Your task to perform on an android device: Open settings on Google Maps Image 0: 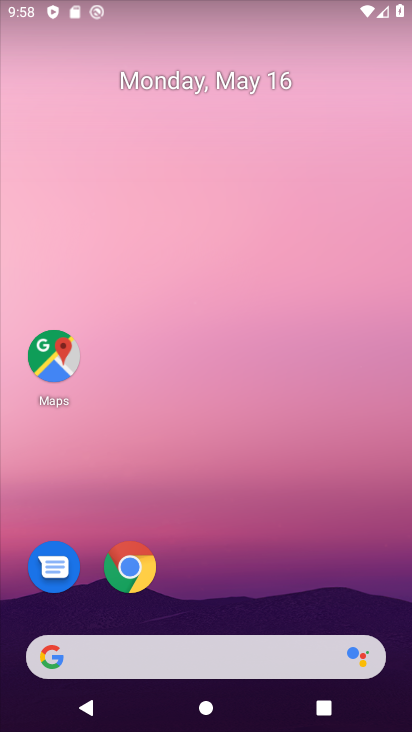
Step 0: click (51, 344)
Your task to perform on an android device: Open settings on Google Maps Image 1: 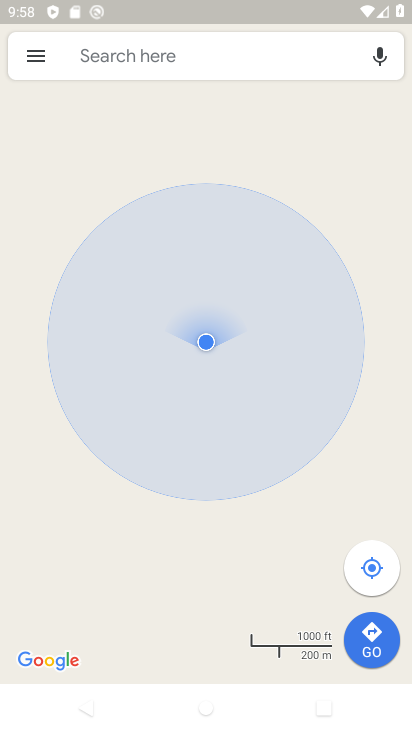
Step 1: click (41, 56)
Your task to perform on an android device: Open settings on Google Maps Image 2: 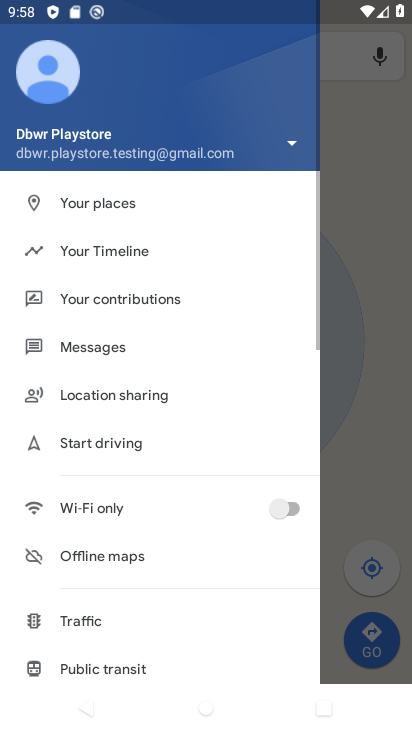
Step 2: drag from (123, 668) to (121, 330)
Your task to perform on an android device: Open settings on Google Maps Image 3: 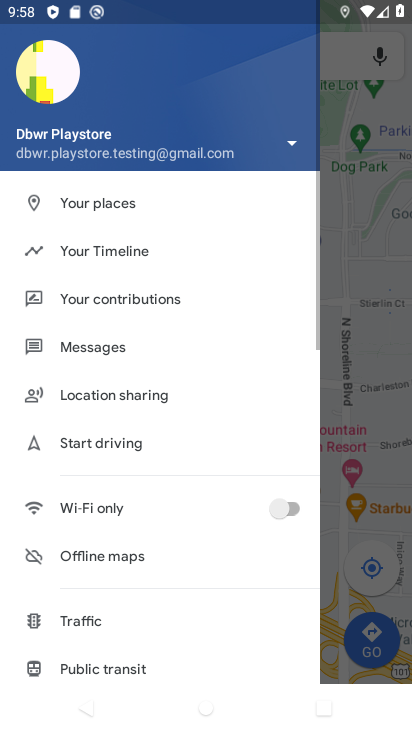
Step 3: drag from (98, 682) to (124, 310)
Your task to perform on an android device: Open settings on Google Maps Image 4: 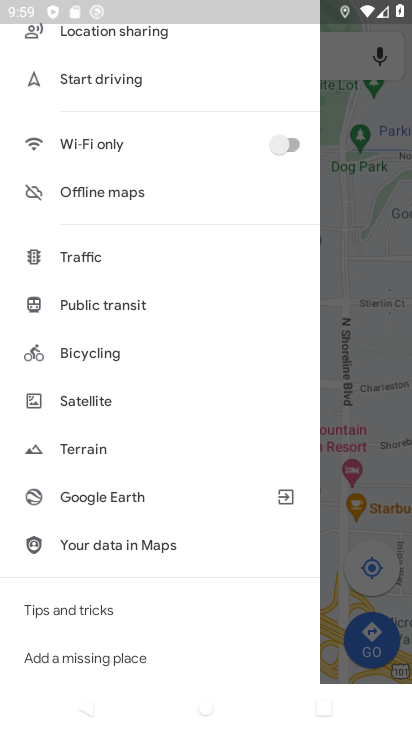
Step 4: drag from (118, 645) to (141, 229)
Your task to perform on an android device: Open settings on Google Maps Image 5: 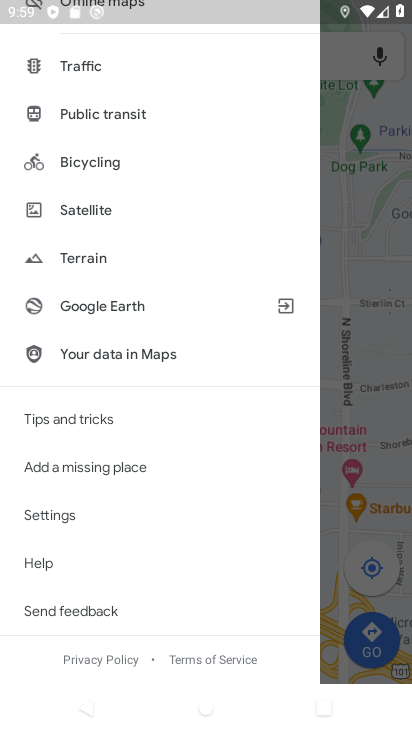
Step 5: click (63, 515)
Your task to perform on an android device: Open settings on Google Maps Image 6: 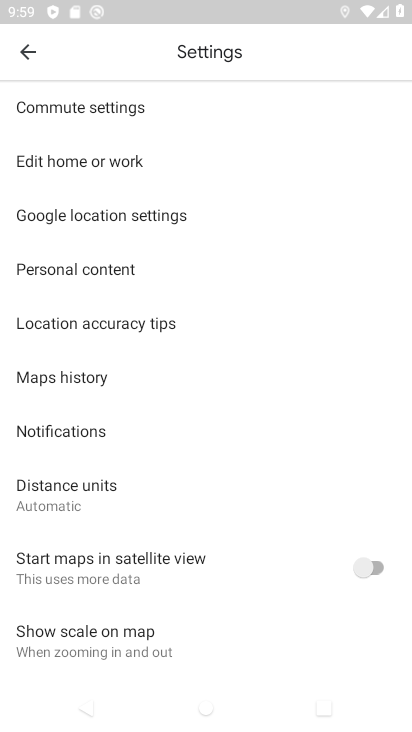
Step 6: task complete